Your task to perform on an android device: Open accessibility settings Image 0: 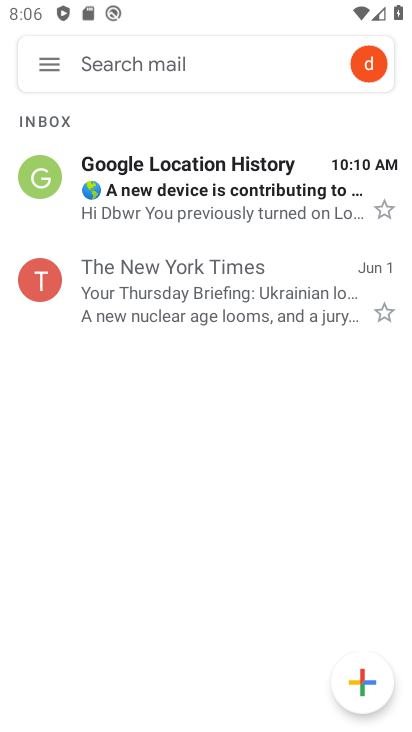
Step 0: press home button
Your task to perform on an android device: Open accessibility settings Image 1: 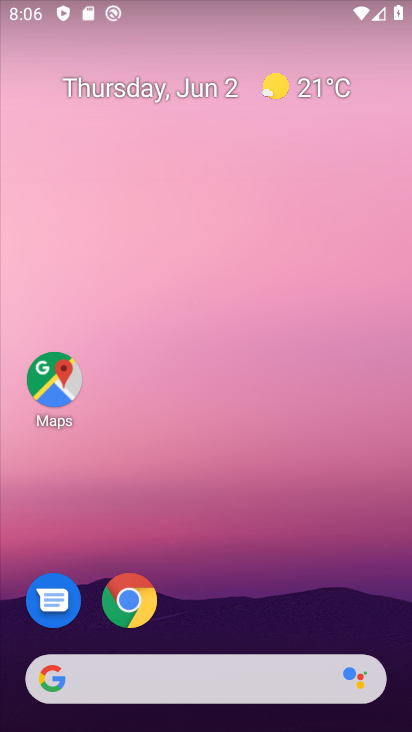
Step 1: drag from (210, 624) to (228, 139)
Your task to perform on an android device: Open accessibility settings Image 2: 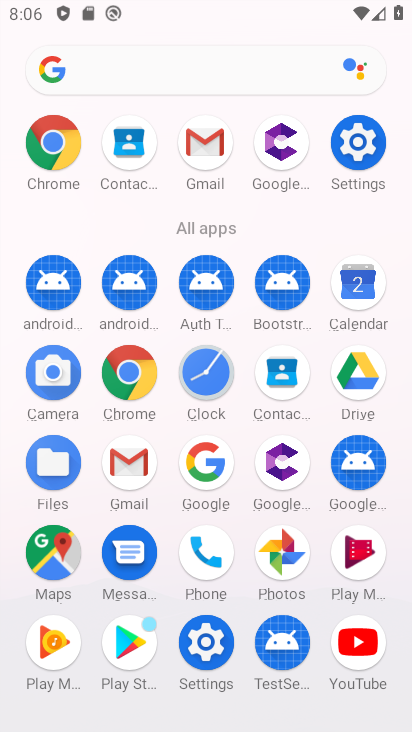
Step 2: click (358, 155)
Your task to perform on an android device: Open accessibility settings Image 3: 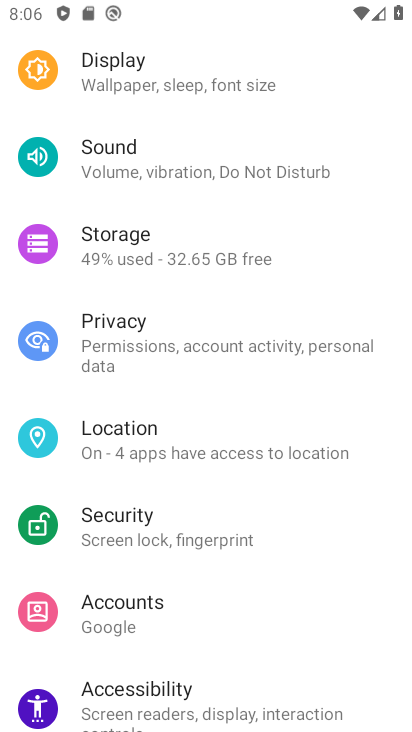
Step 3: click (196, 677)
Your task to perform on an android device: Open accessibility settings Image 4: 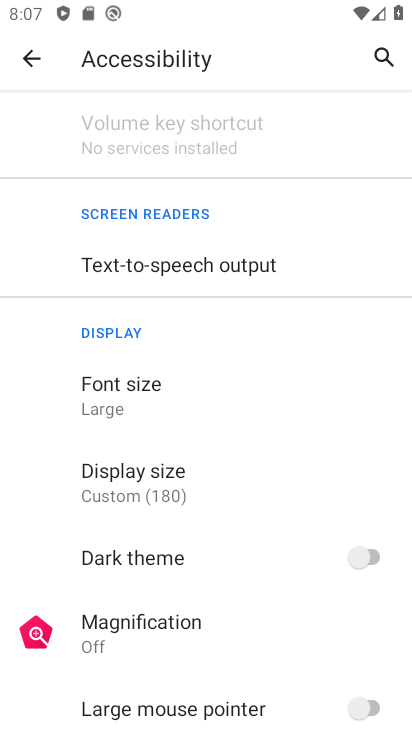
Step 4: task complete